Your task to perform on an android device: see creations saved in the google photos Image 0: 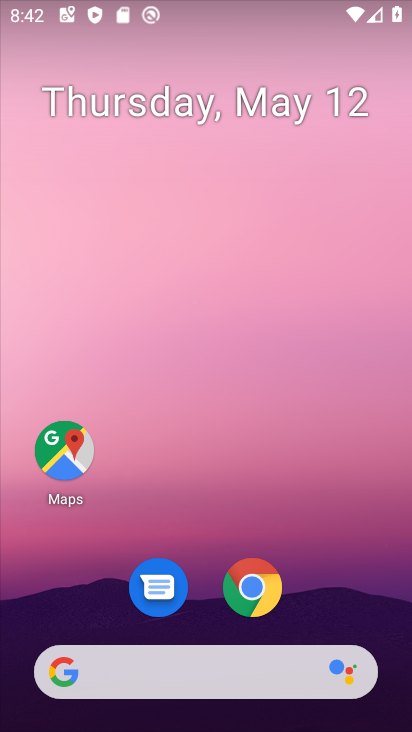
Step 0: drag from (319, 542) to (336, 219)
Your task to perform on an android device: see creations saved in the google photos Image 1: 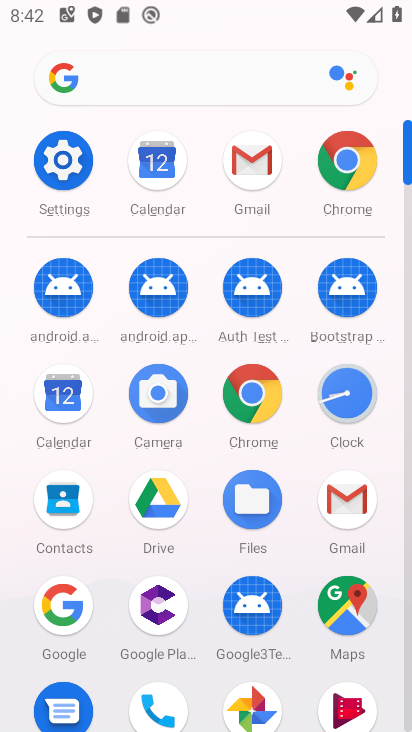
Step 1: drag from (192, 580) to (232, 274)
Your task to perform on an android device: see creations saved in the google photos Image 2: 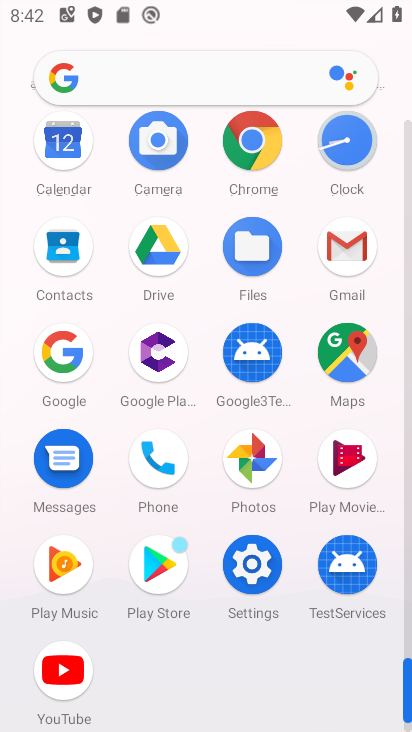
Step 2: click (248, 459)
Your task to perform on an android device: see creations saved in the google photos Image 3: 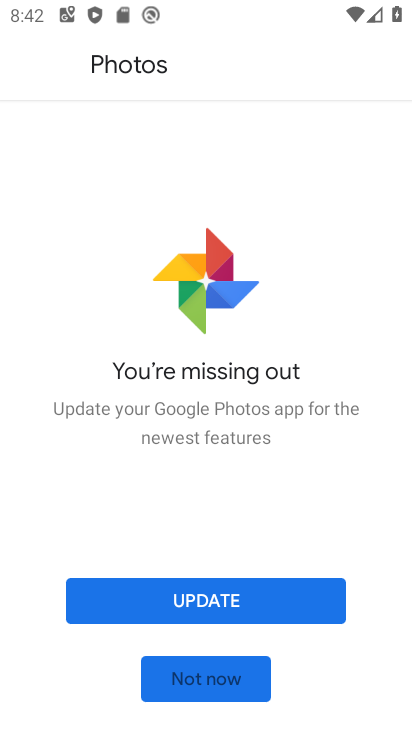
Step 3: click (191, 693)
Your task to perform on an android device: see creations saved in the google photos Image 4: 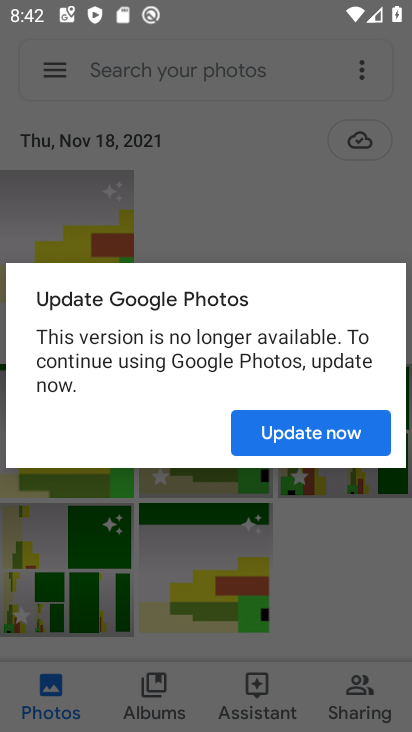
Step 4: click (319, 421)
Your task to perform on an android device: see creations saved in the google photos Image 5: 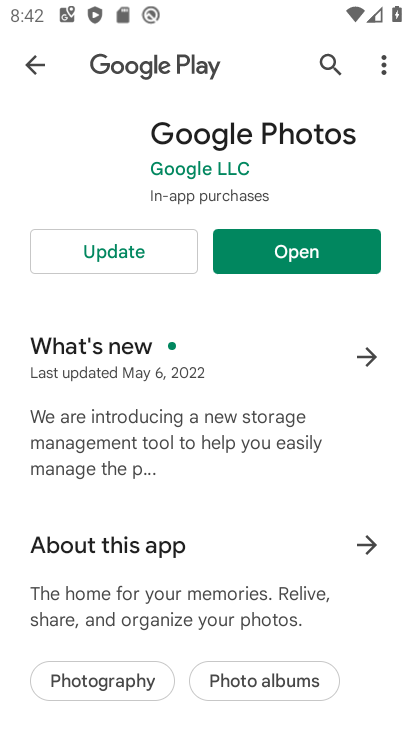
Step 5: press back button
Your task to perform on an android device: see creations saved in the google photos Image 6: 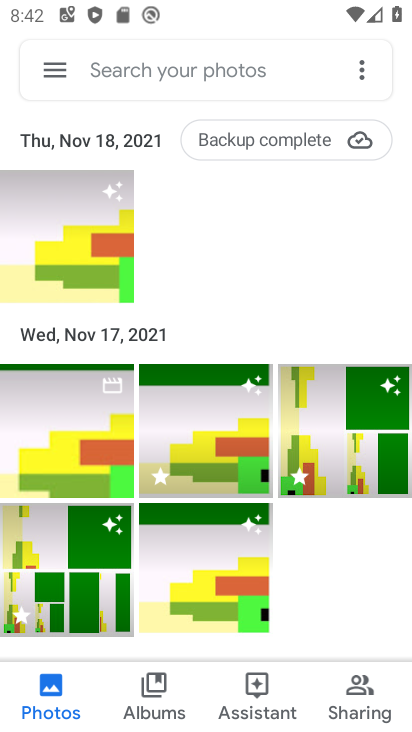
Step 6: click (51, 264)
Your task to perform on an android device: see creations saved in the google photos Image 7: 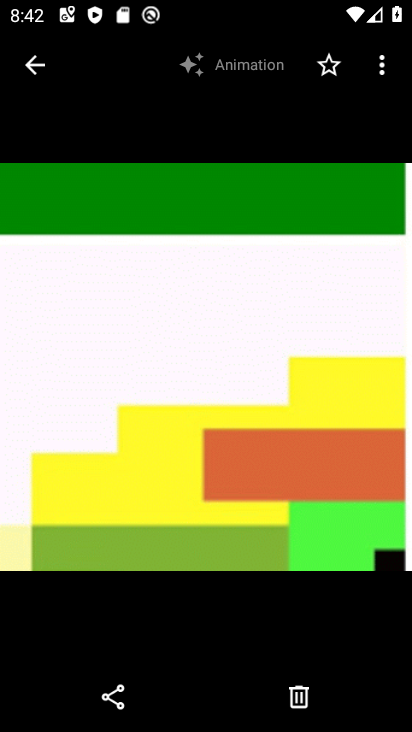
Step 7: click (289, 342)
Your task to perform on an android device: see creations saved in the google photos Image 8: 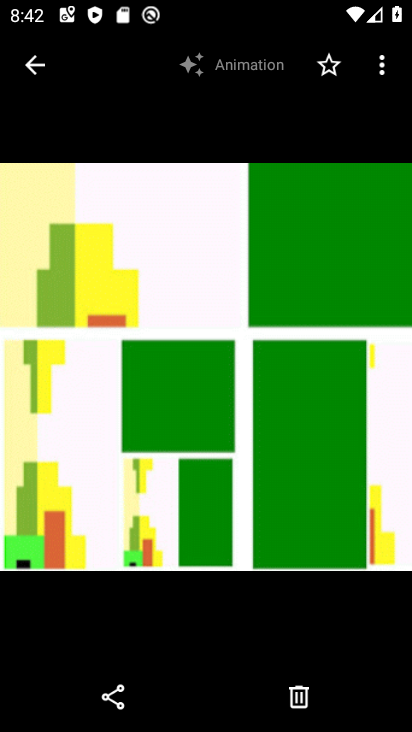
Step 8: task complete